Your task to perform on an android device: turn on airplane mode Image 0: 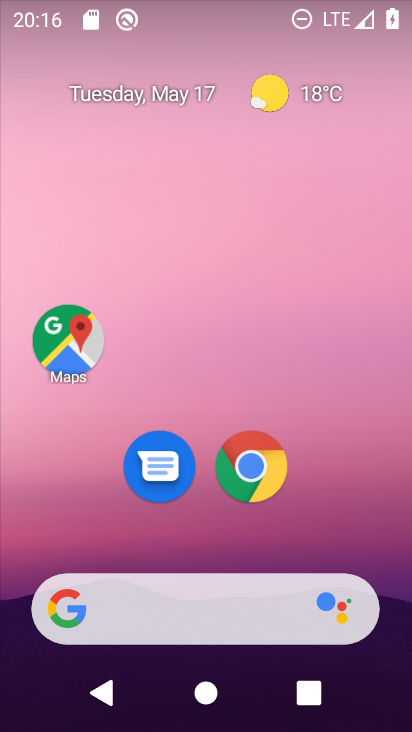
Step 0: press home button
Your task to perform on an android device: turn on airplane mode Image 1: 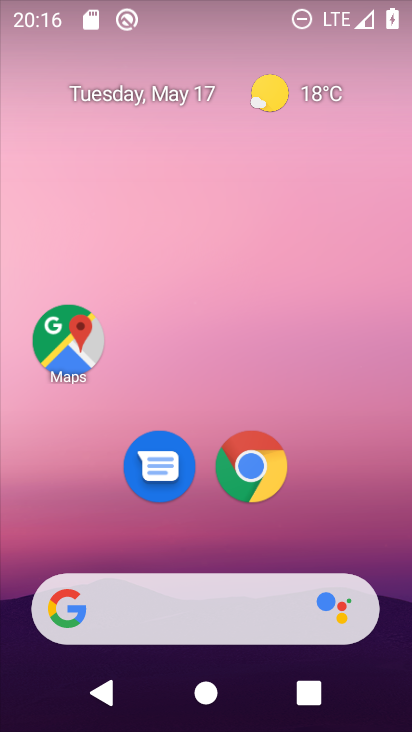
Step 1: drag from (199, 613) to (263, 106)
Your task to perform on an android device: turn on airplane mode Image 2: 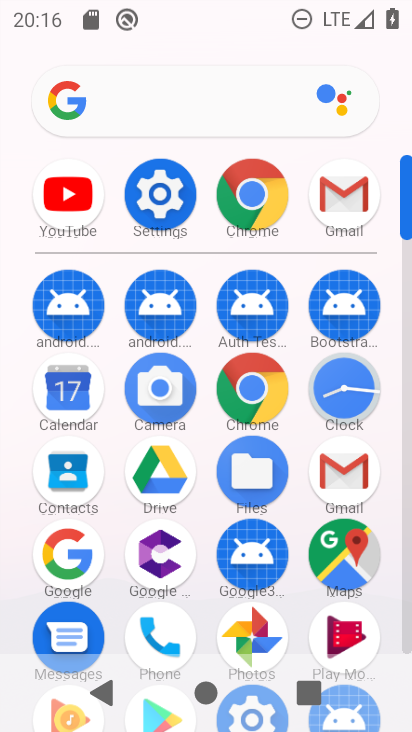
Step 2: click (157, 210)
Your task to perform on an android device: turn on airplane mode Image 3: 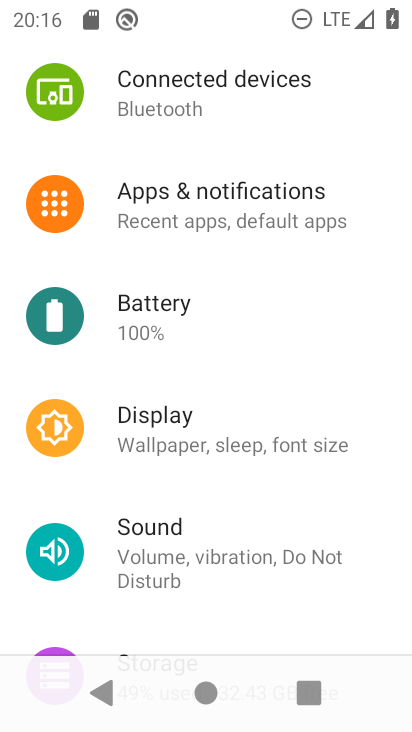
Step 3: drag from (303, 146) to (220, 554)
Your task to perform on an android device: turn on airplane mode Image 4: 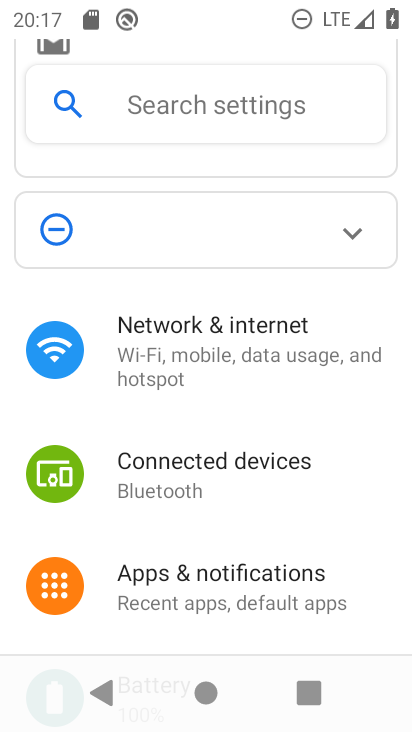
Step 4: click (233, 338)
Your task to perform on an android device: turn on airplane mode Image 5: 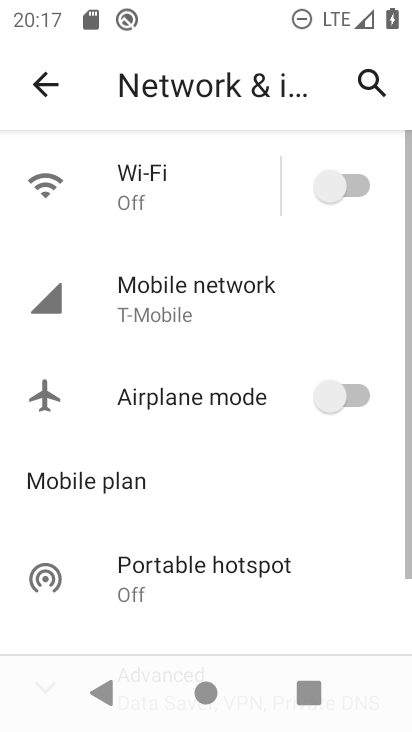
Step 5: click (352, 392)
Your task to perform on an android device: turn on airplane mode Image 6: 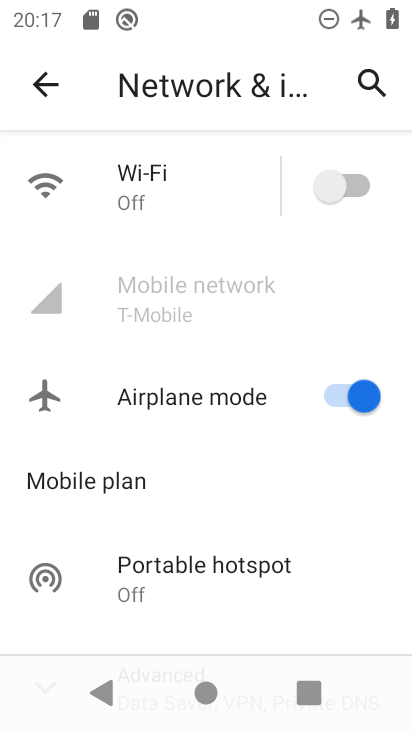
Step 6: task complete